Your task to perform on an android device: turn off picture-in-picture Image 0: 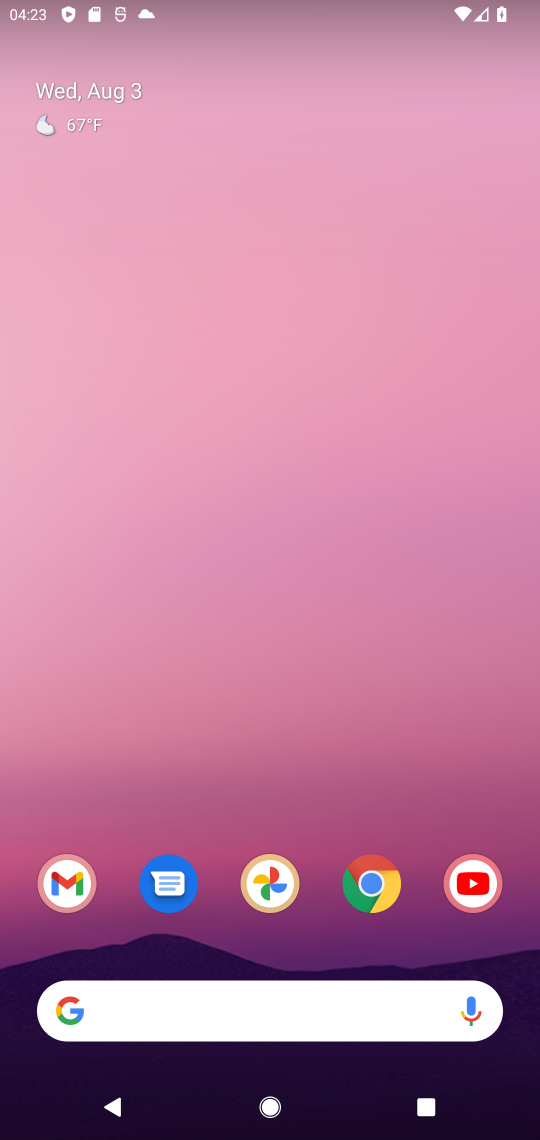
Step 0: click (359, 900)
Your task to perform on an android device: turn off picture-in-picture Image 1: 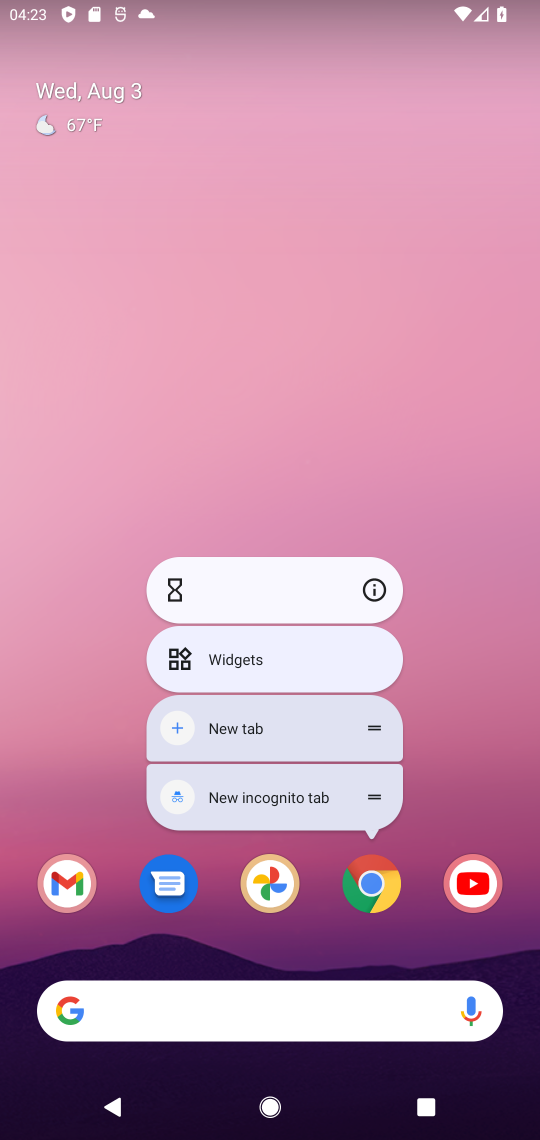
Step 1: click (375, 592)
Your task to perform on an android device: turn off picture-in-picture Image 2: 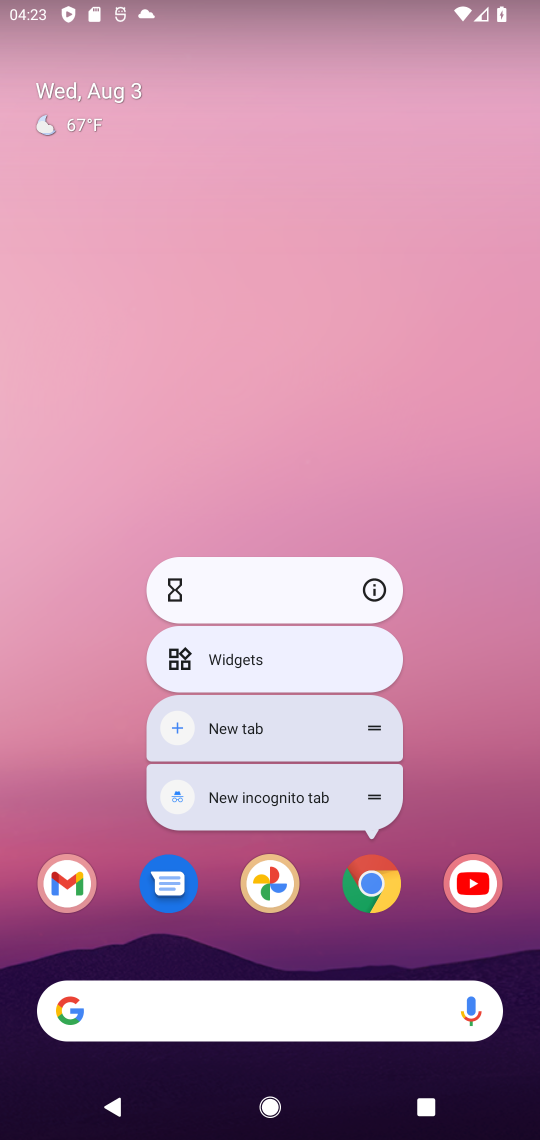
Step 2: click (379, 593)
Your task to perform on an android device: turn off picture-in-picture Image 3: 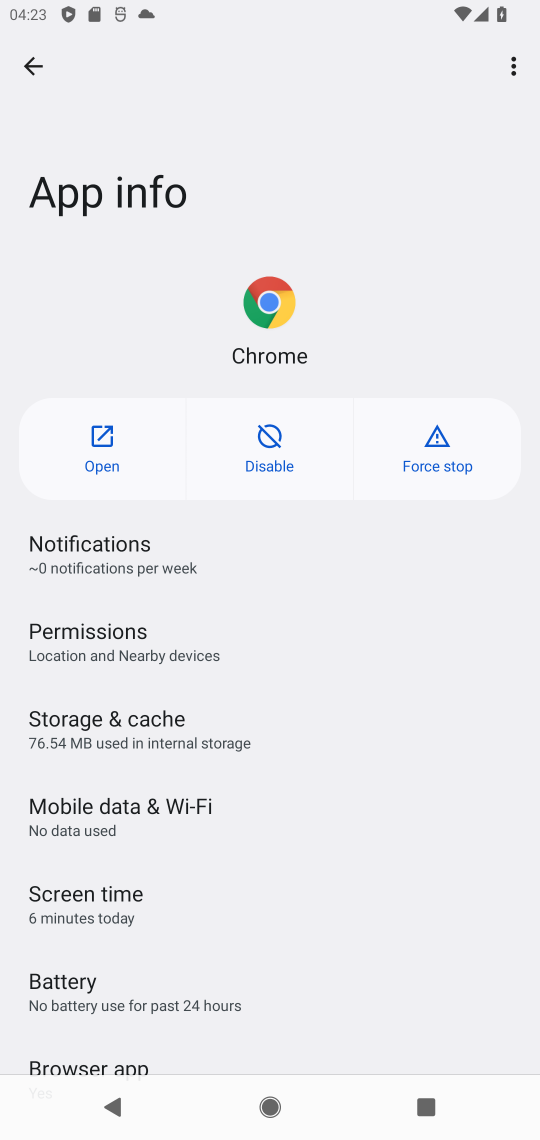
Step 3: drag from (159, 897) to (187, 626)
Your task to perform on an android device: turn off picture-in-picture Image 4: 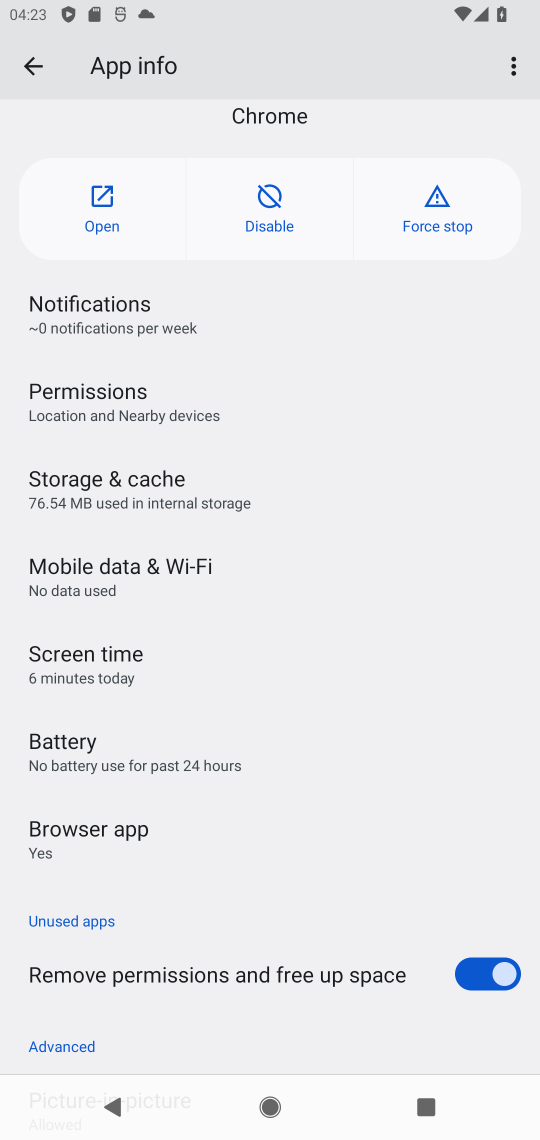
Step 4: drag from (139, 930) to (233, 298)
Your task to perform on an android device: turn off picture-in-picture Image 5: 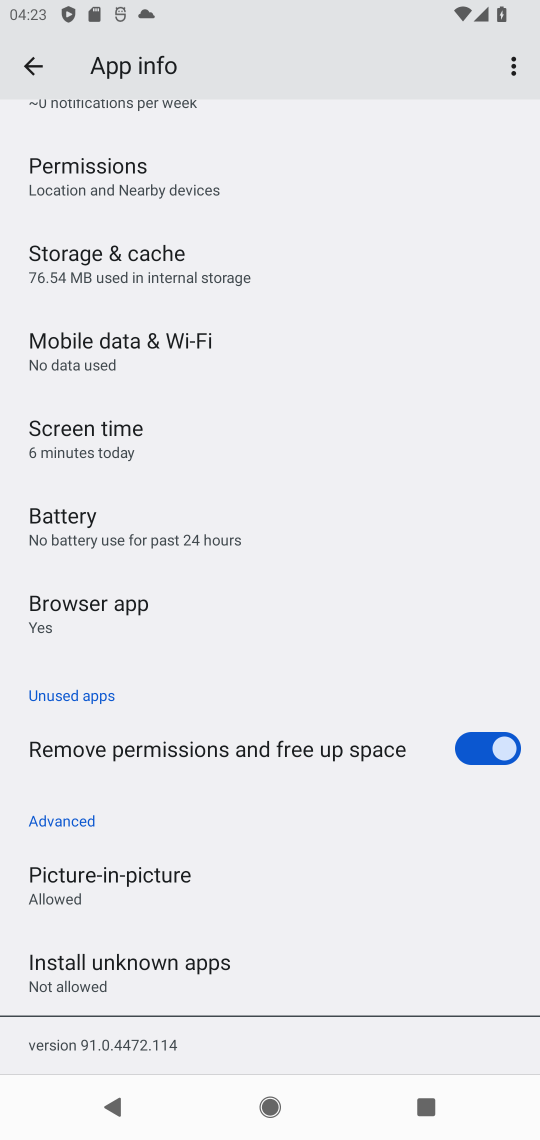
Step 5: click (120, 848)
Your task to perform on an android device: turn off picture-in-picture Image 6: 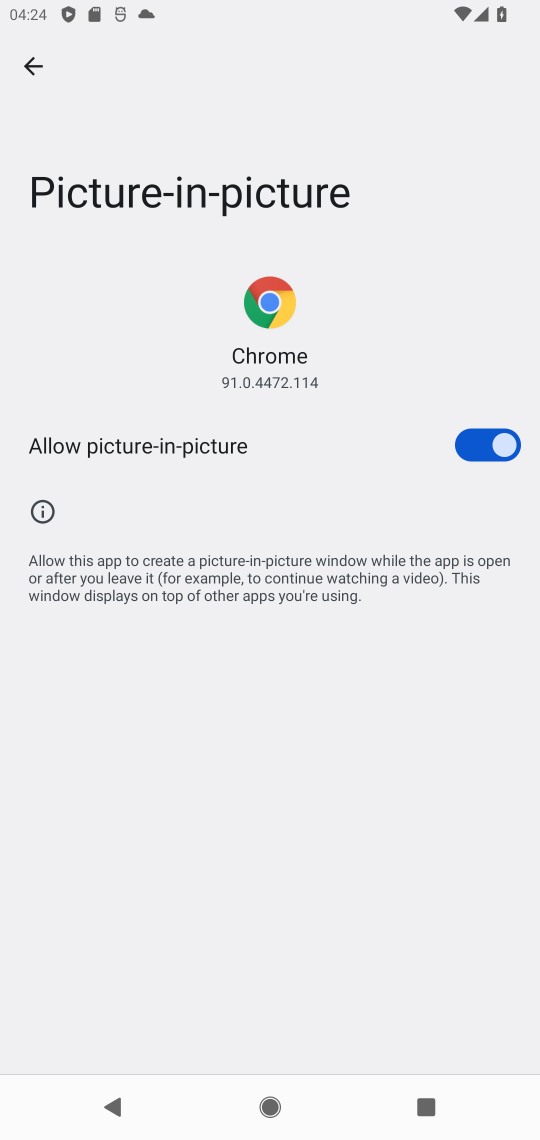
Step 6: click (449, 447)
Your task to perform on an android device: turn off picture-in-picture Image 7: 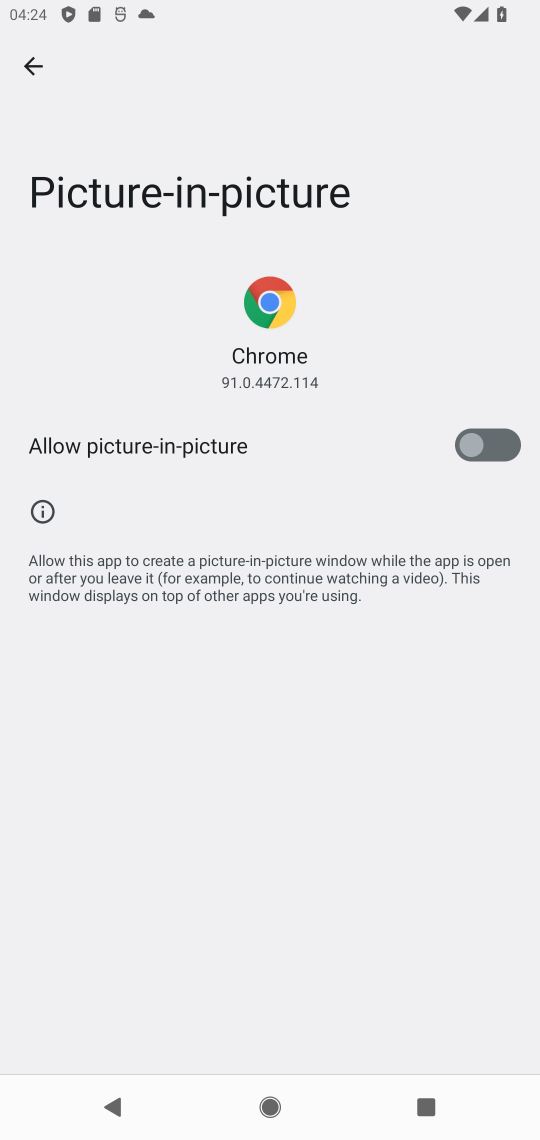
Step 7: task complete